Your task to perform on an android device: delete a single message in the gmail app Image 0: 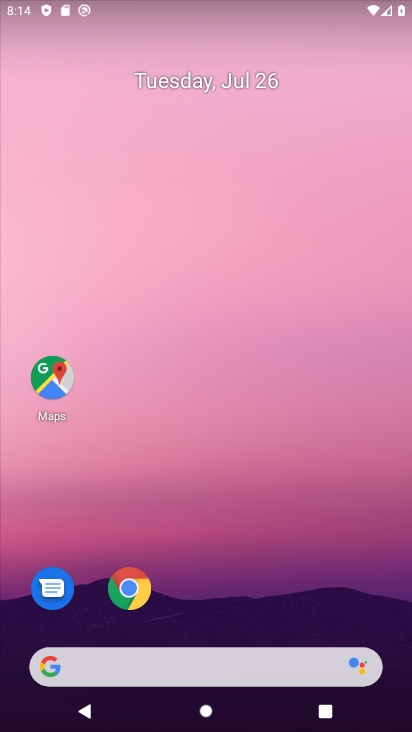
Step 0: drag from (320, 639) to (315, 10)
Your task to perform on an android device: delete a single message in the gmail app Image 1: 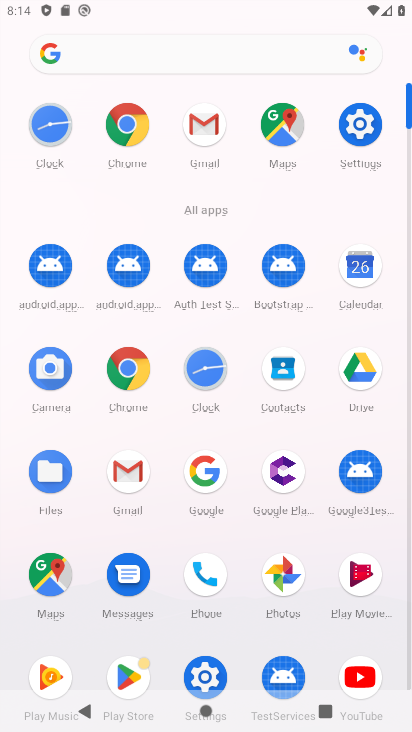
Step 1: click (204, 127)
Your task to perform on an android device: delete a single message in the gmail app Image 2: 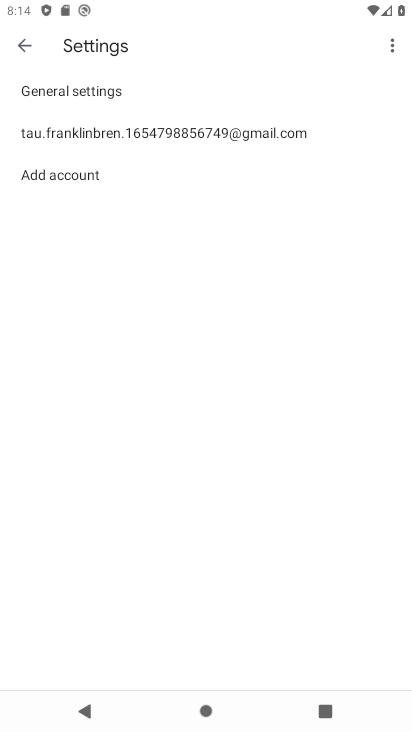
Step 2: click (34, 52)
Your task to perform on an android device: delete a single message in the gmail app Image 3: 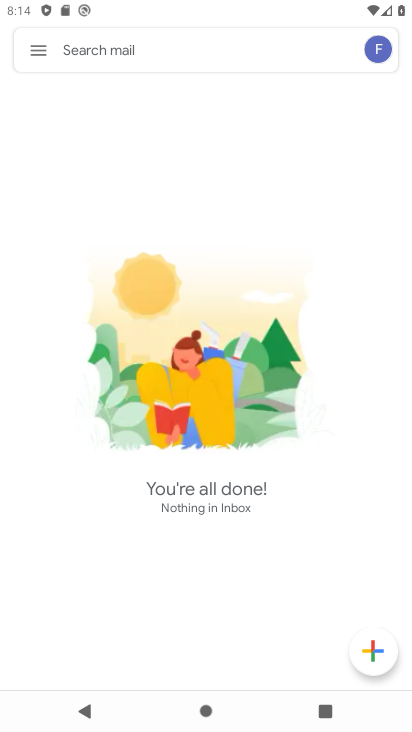
Step 3: click (34, 52)
Your task to perform on an android device: delete a single message in the gmail app Image 4: 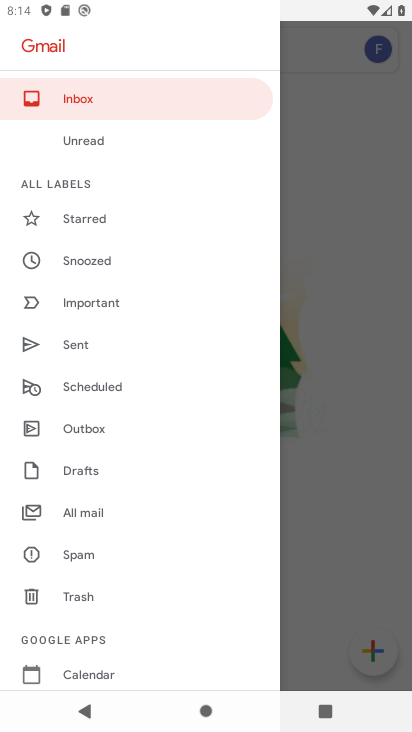
Step 4: click (92, 512)
Your task to perform on an android device: delete a single message in the gmail app Image 5: 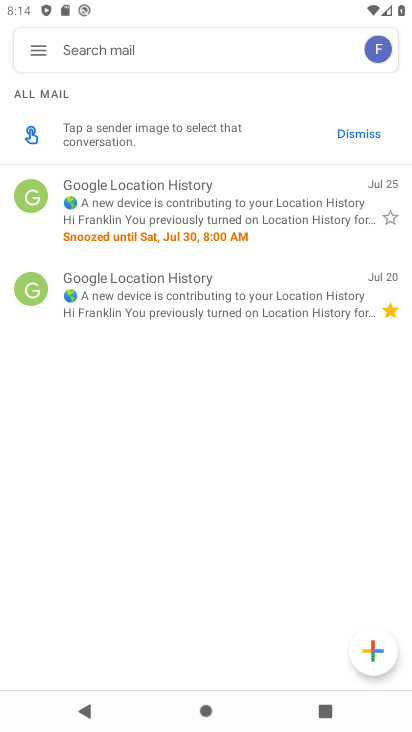
Step 5: click (121, 210)
Your task to perform on an android device: delete a single message in the gmail app Image 6: 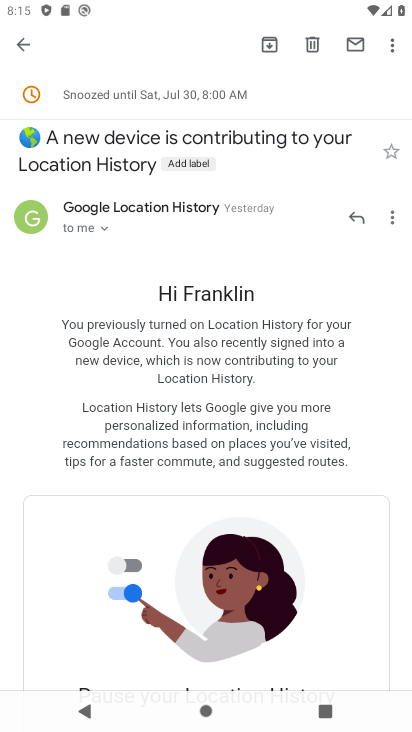
Step 6: click (314, 43)
Your task to perform on an android device: delete a single message in the gmail app Image 7: 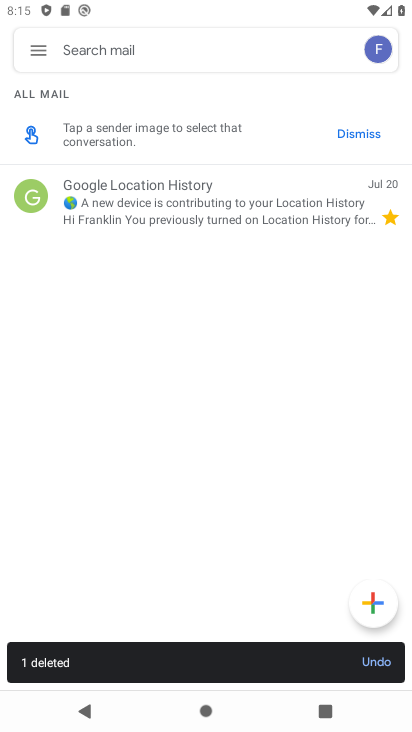
Step 7: task complete